Your task to perform on an android device: delete browsing data in the chrome app Image 0: 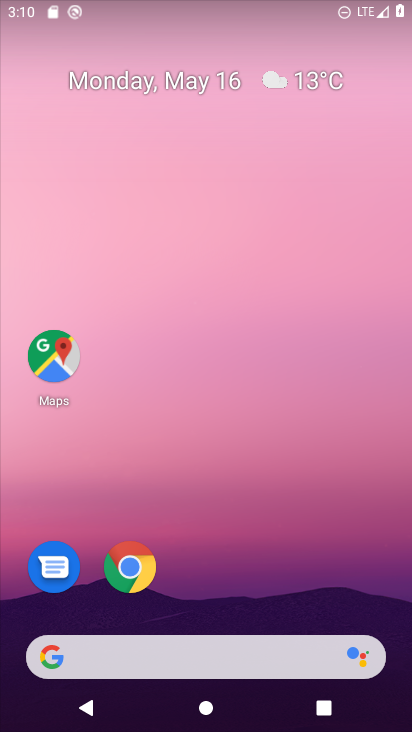
Step 0: click (125, 553)
Your task to perform on an android device: delete browsing data in the chrome app Image 1: 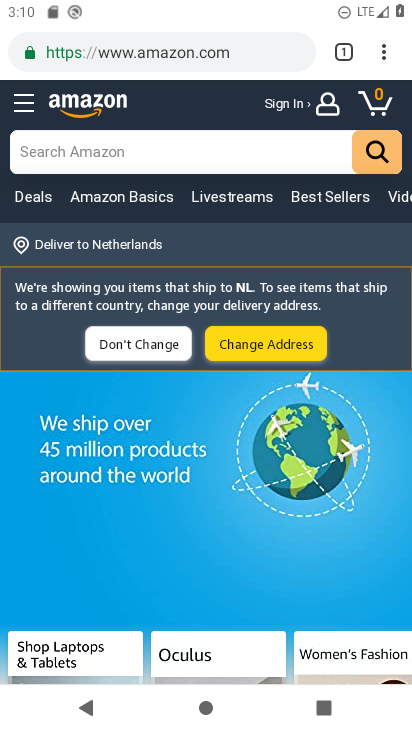
Step 1: click (381, 56)
Your task to perform on an android device: delete browsing data in the chrome app Image 2: 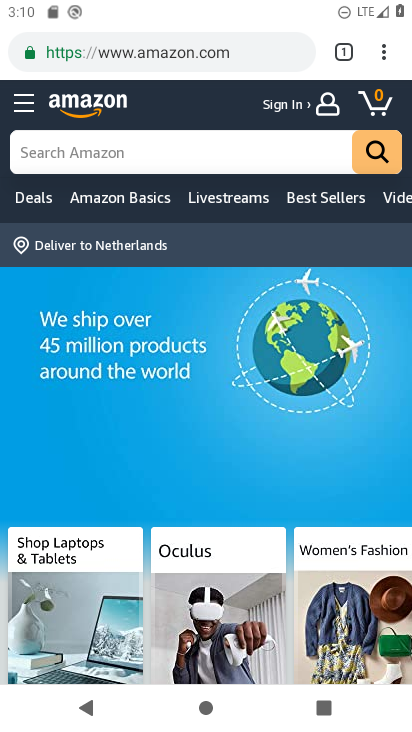
Step 2: click (381, 56)
Your task to perform on an android device: delete browsing data in the chrome app Image 3: 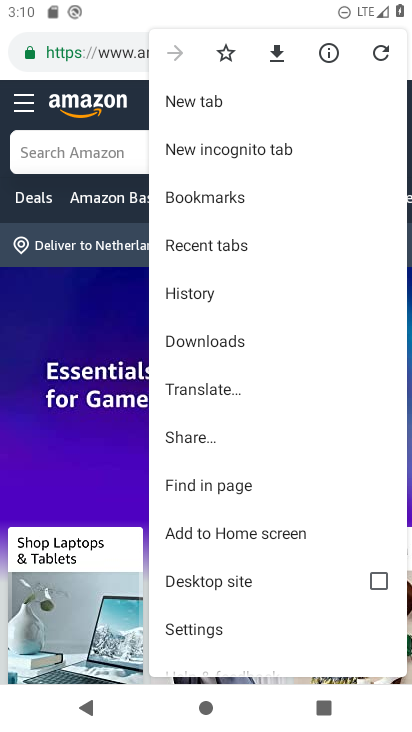
Step 3: click (218, 294)
Your task to perform on an android device: delete browsing data in the chrome app Image 4: 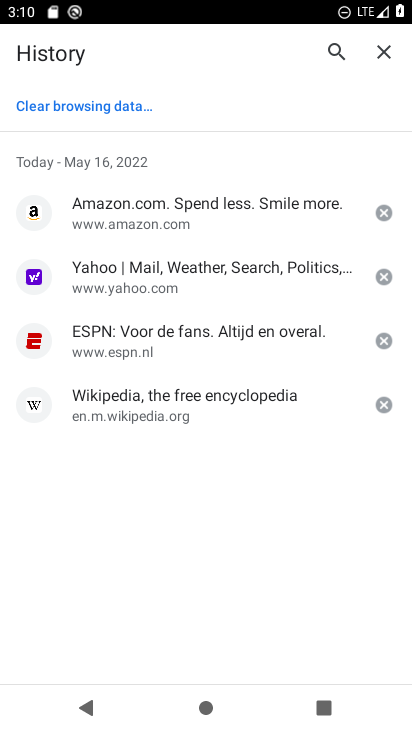
Step 4: click (126, 103)
Your task to perform on an android device: delete browsing data in the chrome app Image 5: 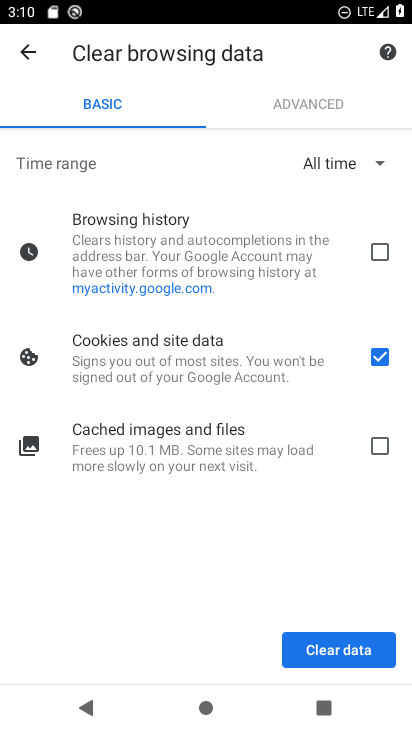
Step 5: click (382, 259)
Your task to perform on an android device: delete browsing data in the chrome app Image 6: 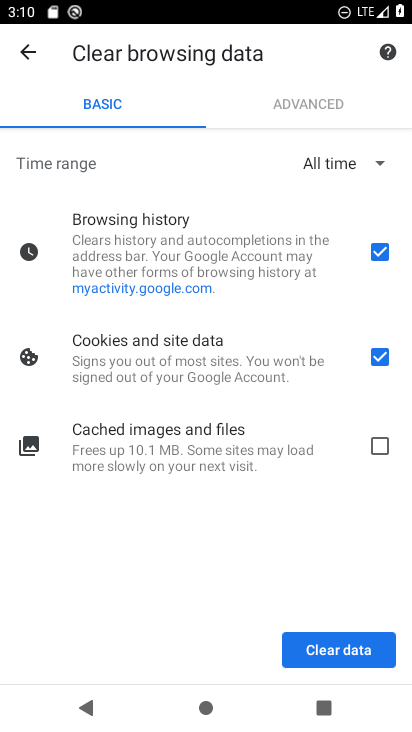
Step 6: click (377, 346)
Your task to perform on an android device: delete browsing data in the chrome app Image 7: 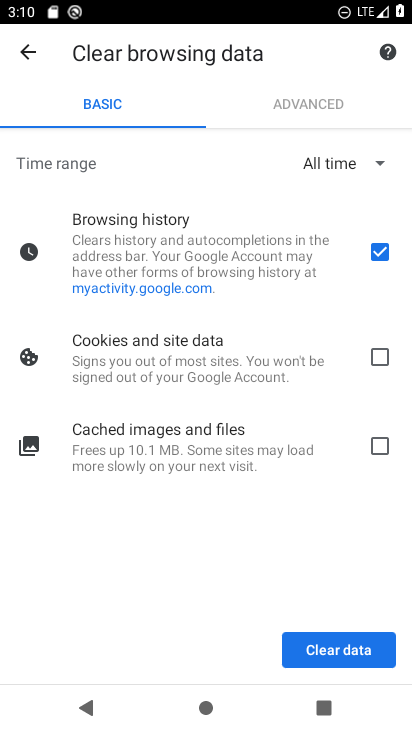
Step 7: click (371, 447)
Your task to perform on an android device: delete browsing data in the chrome app Image 8: 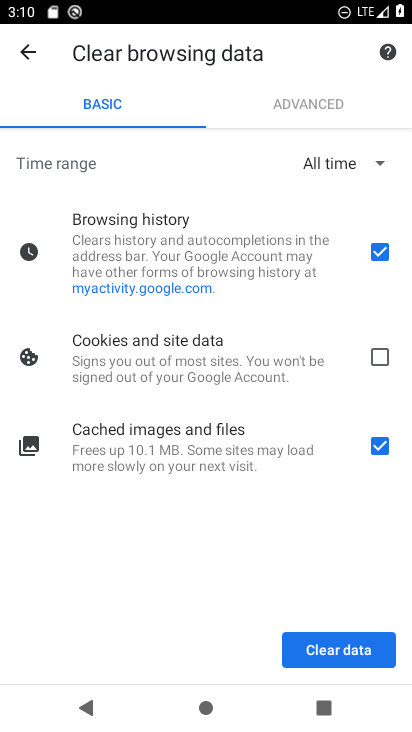
Step 8: click (376, 367)
Your task to perform on an android device: delete browsing data in the chrome app Image 9: 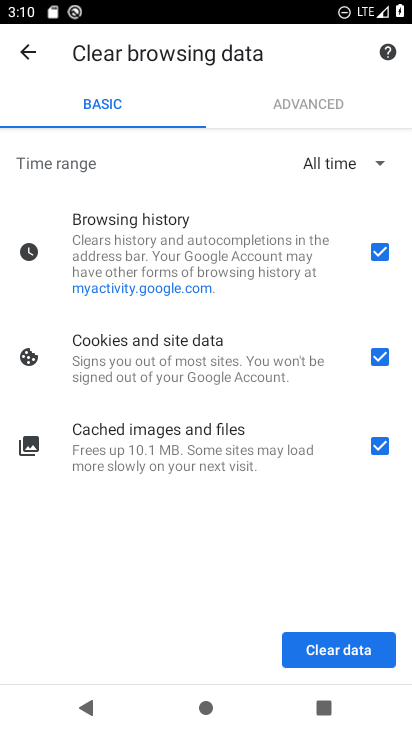
Step 9: click (330, 641)
Your task to perform on an android device: delete browsing data in the chrome app Image 10: 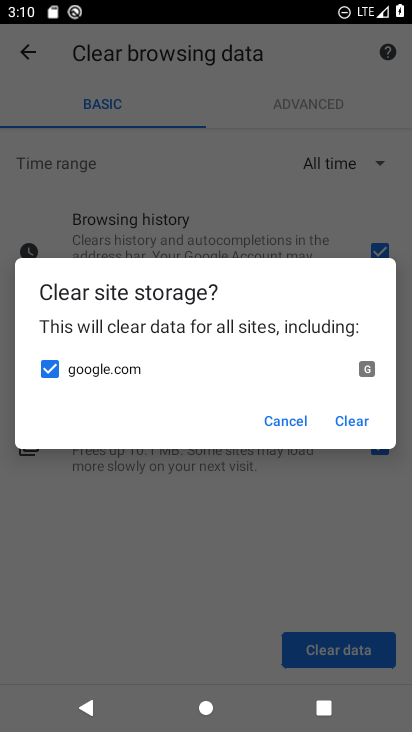
Step 10: click (353, 415)
Your task to perform on an android device: delete browsing data in the chrome app Image 11: 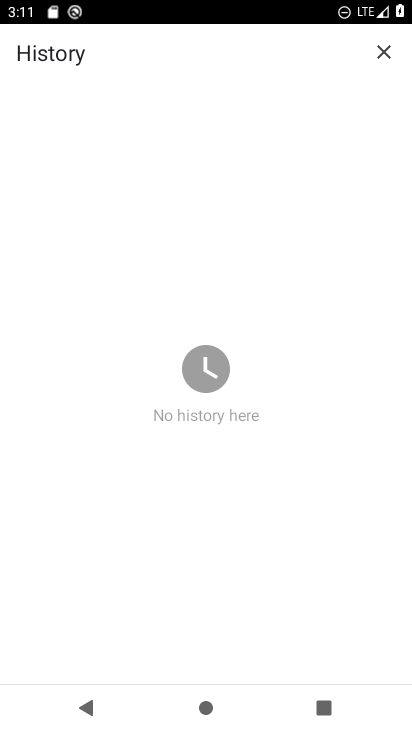
Step 11: task complete